Your task to perform on an android device: Add "logitech g910" to the cart on newegg, then select checkout. Image 0: 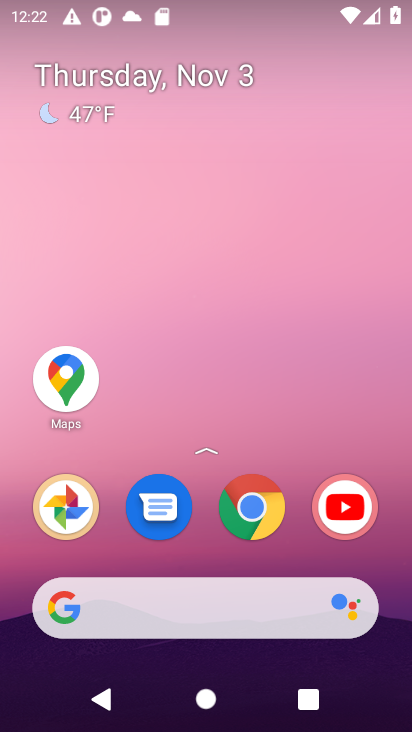
Step 0: task complete